Your task to perform on an android device: What's on my calendar today? Image 0: 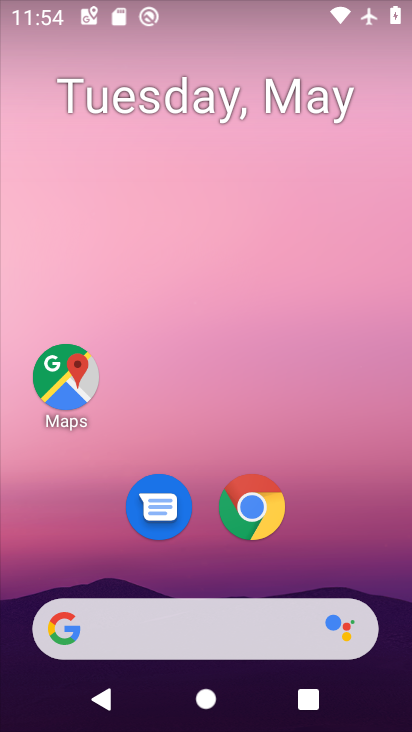
Step 0: drag from (254, 708) to (178, 149)
Your task to perform on an android device: What's on my calendar today? Image 1: 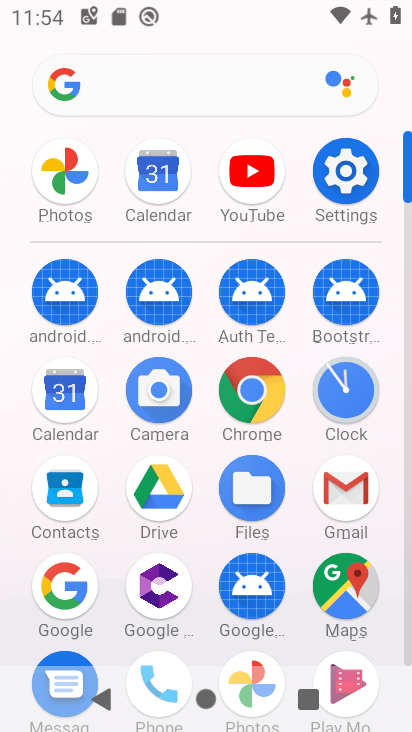
Step 1: click (61, 400)
Your task to perform on an android device: What's on my calendar today? Image 2: 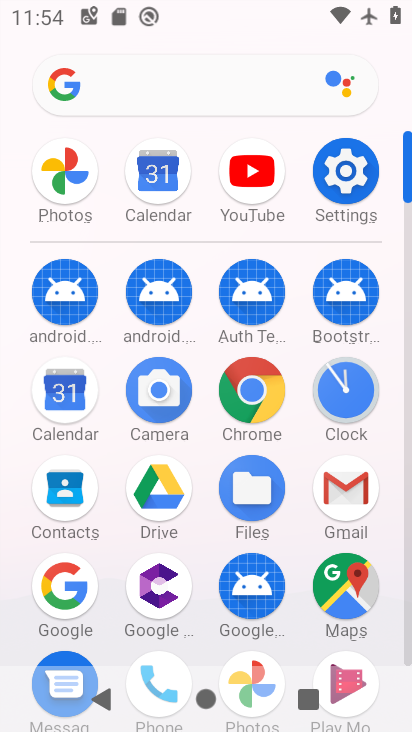
Step 2: click (61, 400)
Your task to perform on an android device: What's on my calendar today? Image 3: 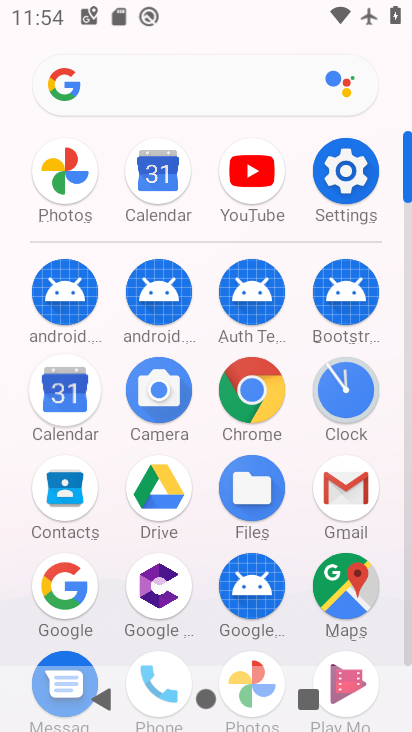
Step 3: click (61, 400)
Your task to perform on an android device: What's on my calendar today? Image 4: 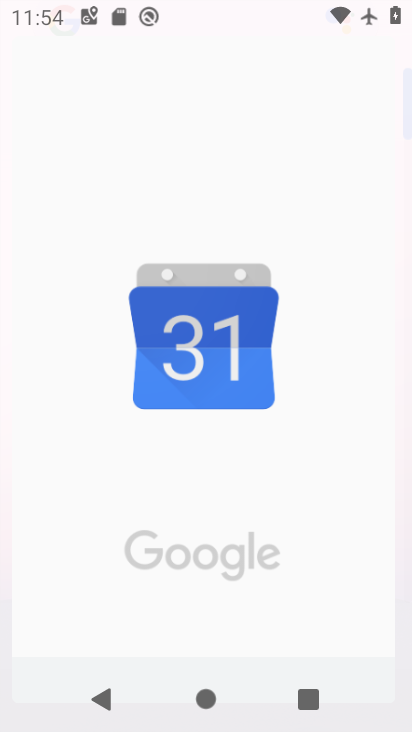
Step 4: click (59, 397)
Your task to perform on an android device: What's on my calendar today? Image 5: 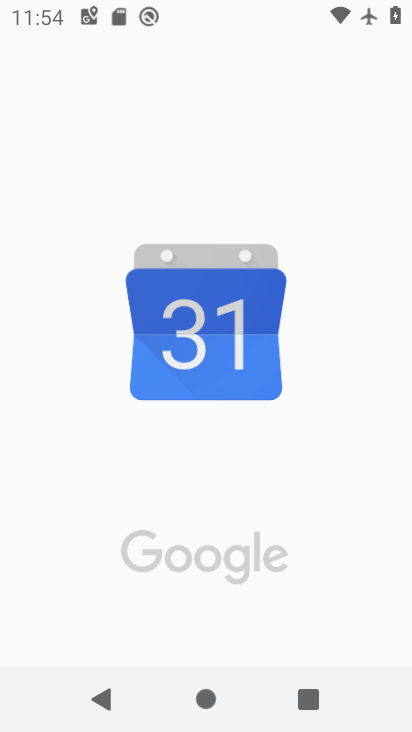
Step 5: click (60, 393)
Your task to perform on an android device: What's on my calendar today? Image 6: 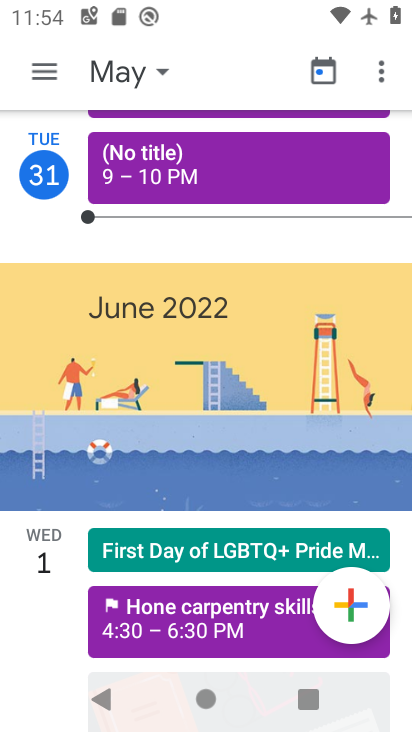
Step 6: click (163, 73)
Your task to perform on an android device: What's on my calendar today? Image 7: 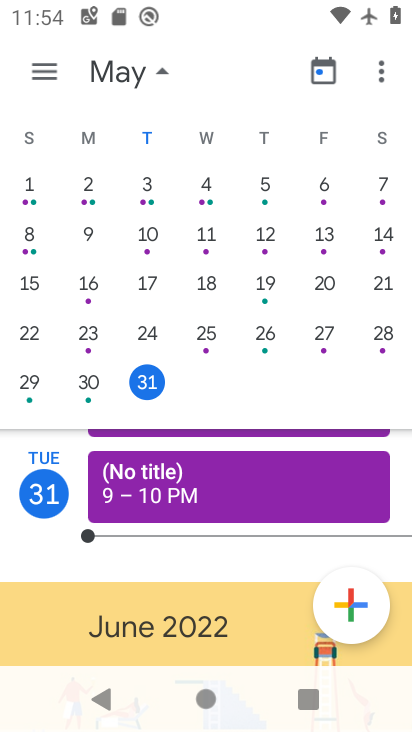
Step 7: click (30, 345)
Your task to perform on an android device: What's on my calendar today? Image 8: 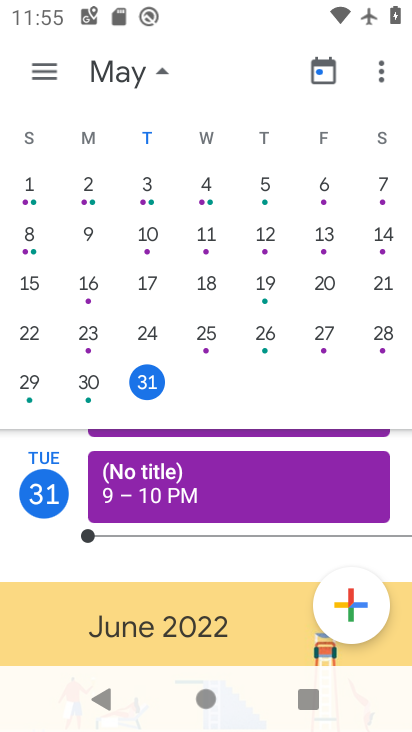
Step 8: drag from (115, 264) to (50, 307)
Your task to perform on an android device: What's on my calendar today? Image 9: 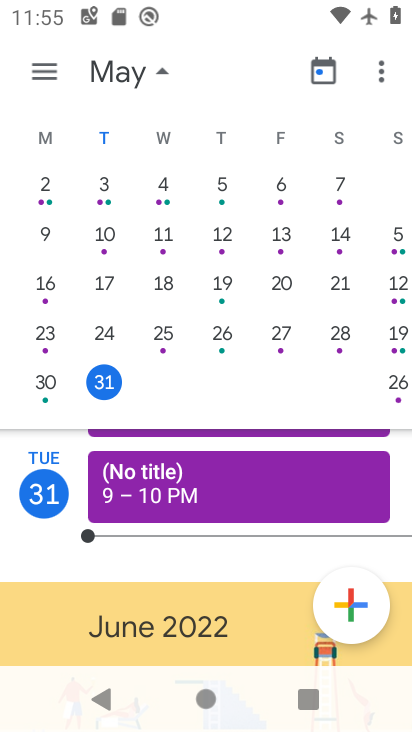
Step 9: drag from (206, 273) to (0, 330)
Your task to perform on an android device: What's on my calendar today? Image 10: 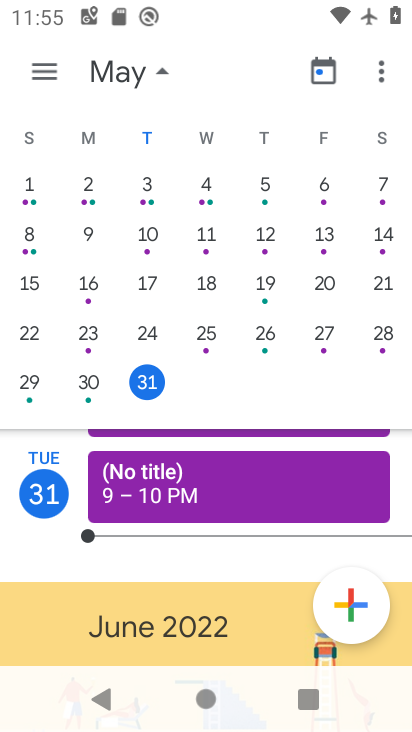
Step 10: drag from (315, 205) to (8, 397)
Your task to perform on an android device: What's on my calendar today? Image 11: 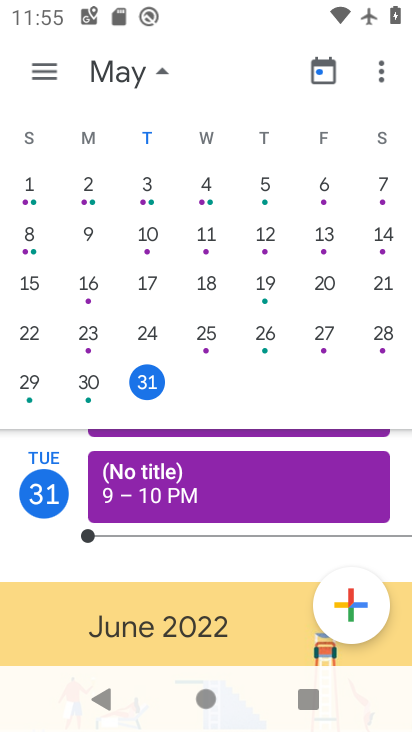
Step 11: drag from (249, 280) to (32, 303)
Your task to perform on an android device: What's on my calendar today? Image 12: 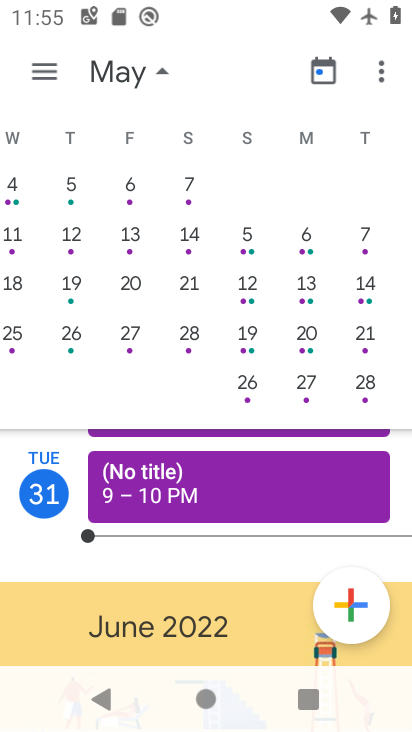
Step 12: drag from (220, 196) to (64, 276)
Your task to perform on an android device: What's on my calendar today? Image 13: 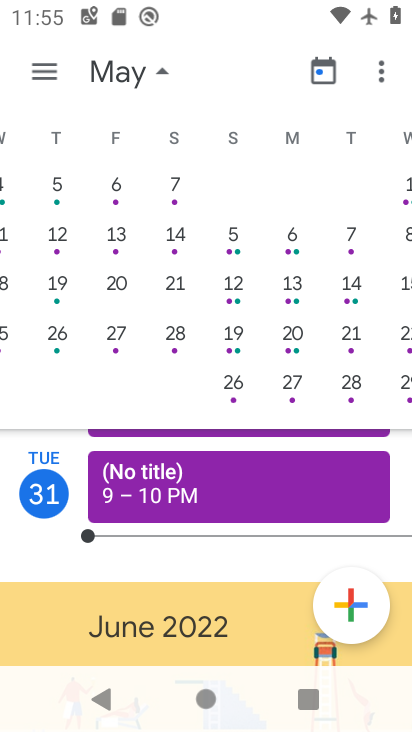
Step 13: drag from (267, 198) to (13, 309)
Your task to perform on an android device: What's on my calendar today? Image 14: 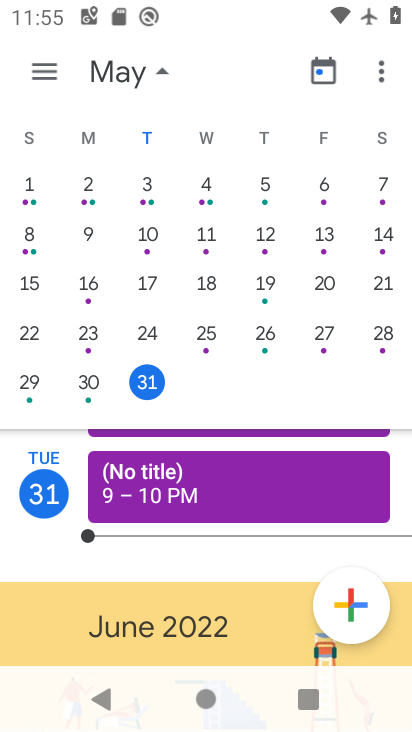
Step 14: drag from (267, 217) to (0, 303)
Your task to perform on an android device: What's on my calendar today? Image 15: 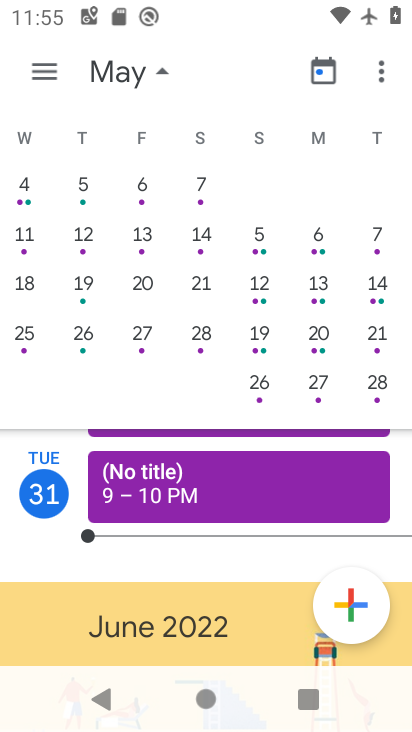
Step 15: drag from (186, 262) to (174, 344)
Your task to perform on an android device: What's on my calendar today? Image 16: 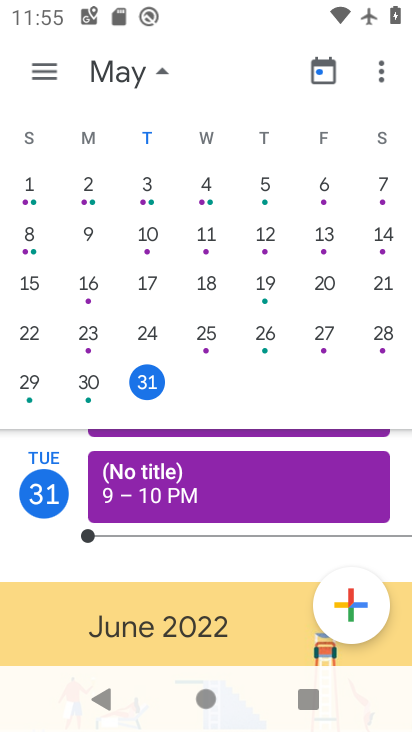
Step 16: drag from (341, 263) to (10, 295)
Your task to perform on an android device: What's on my calendar today? Image 17: 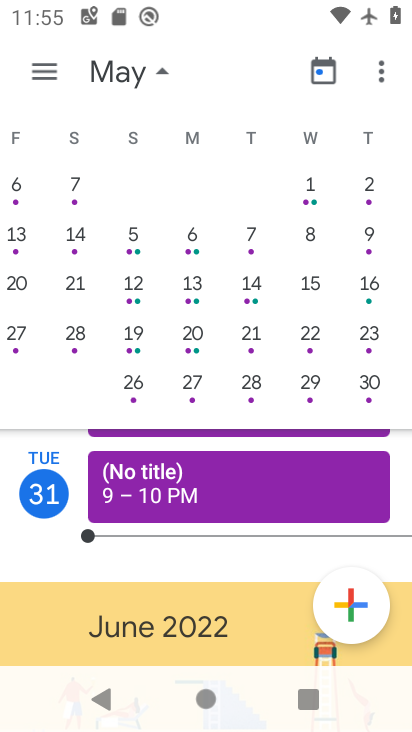
Step 17: drag from (172, 260) to (35, 280)
Your task to perform on an android device: What's on my calendar today? Image 18: 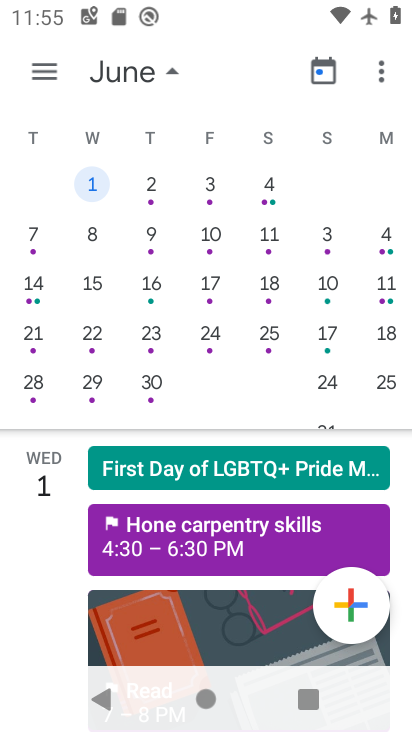
Step 18: drag from (173, 244) to (34, 287)
Your task to perform on an android device: What's on my calendar today? Image 19: 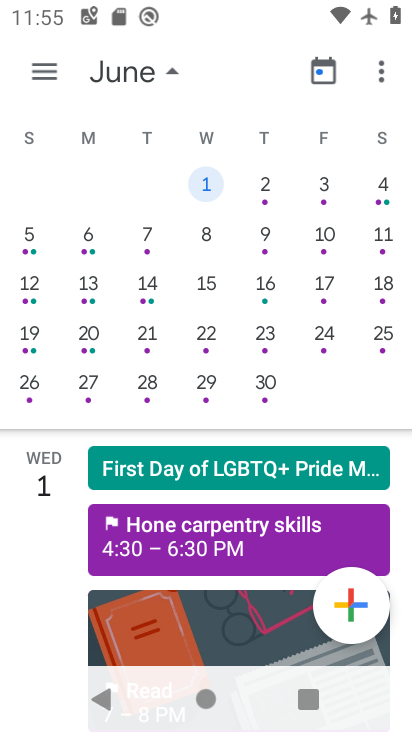
Step 19: click (190, 174)
Your task to perform on an android device: What's on my calendar today? Image 20: 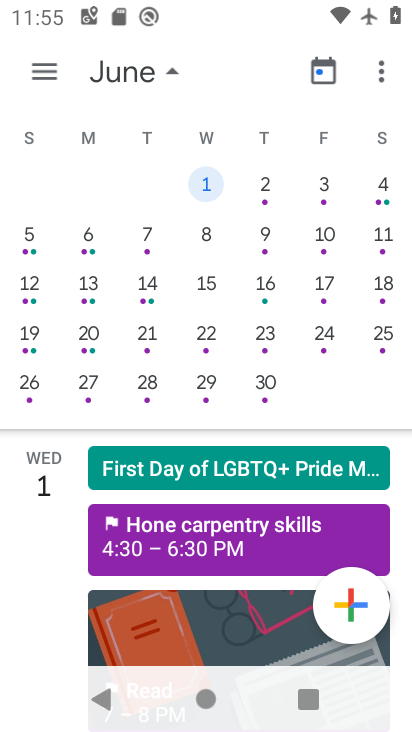
Step 20: click (198, 177)
Your task to perform on an android device: What's on my calendar today? Image 21: 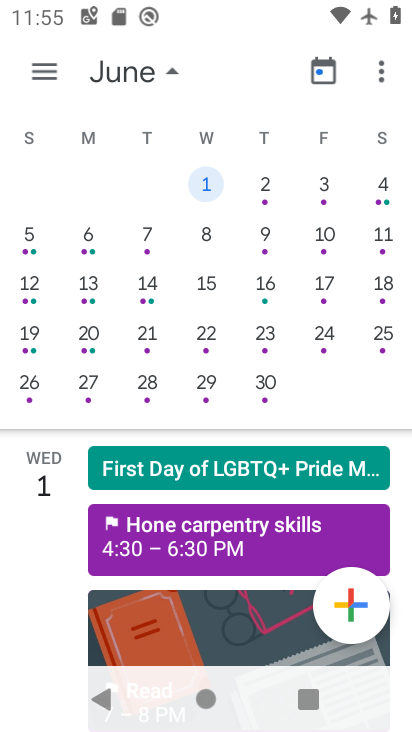
Step 21: click (199, 179)
Your task to perform on an android device: What's on my calendar today? Image 22: 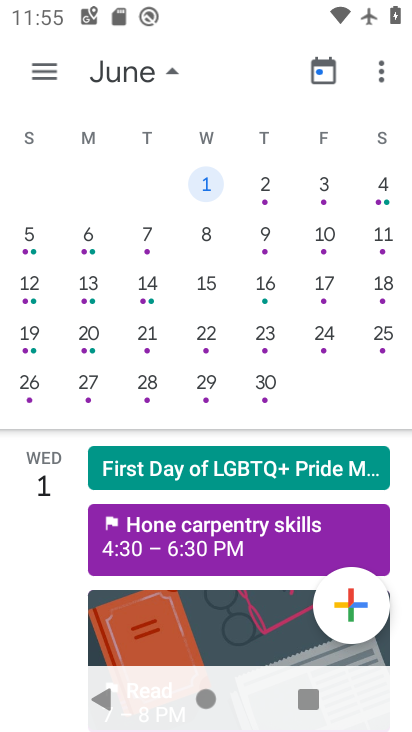
Step 22: click (199, 179)
Your task to perform on an android device: What's on my calendar today? Image 23: 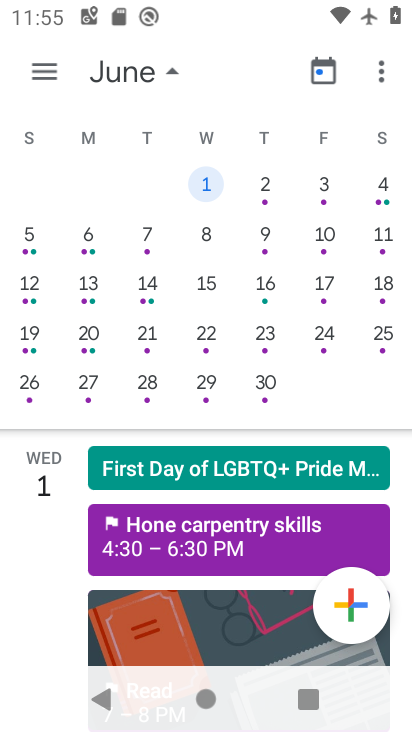
Step 23: click (201, 183)
Your task to perform on an android device: What's on my calendar today? Image 24: 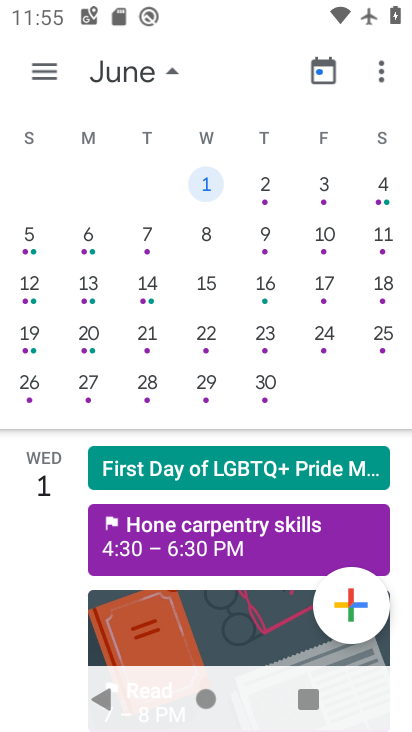
Step 24: task complete